Your task to perform on an android device: Turn off the flashlight Image 0: 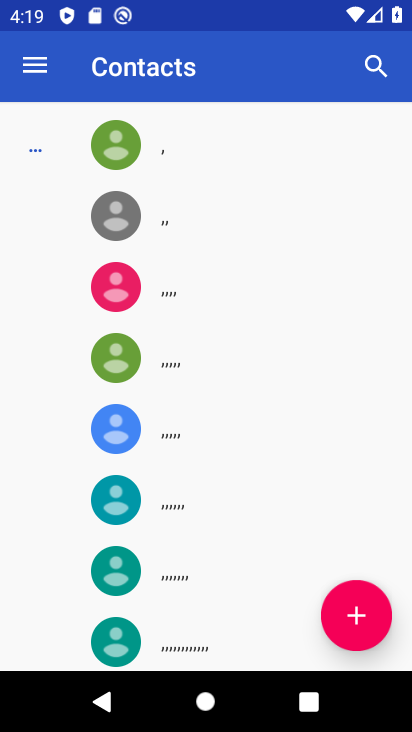
Step 0: press home button
Your task to perform on an android device: Turn off the flashlight Image 1: 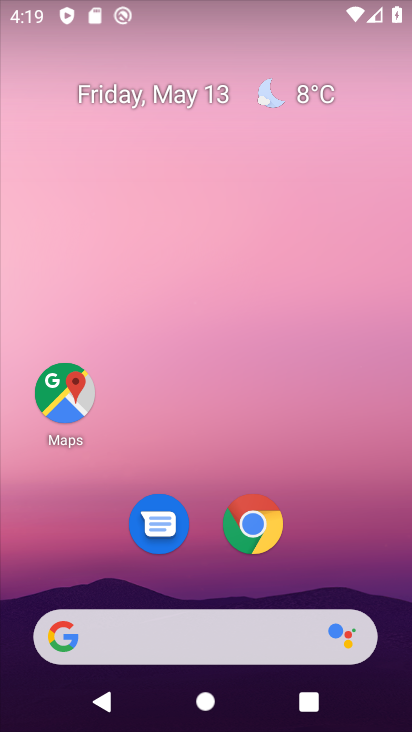
Step 1: drag from (329, 518) to (247, 44)
Your task to perform on an android device: Turn off the flashlight Image 2: 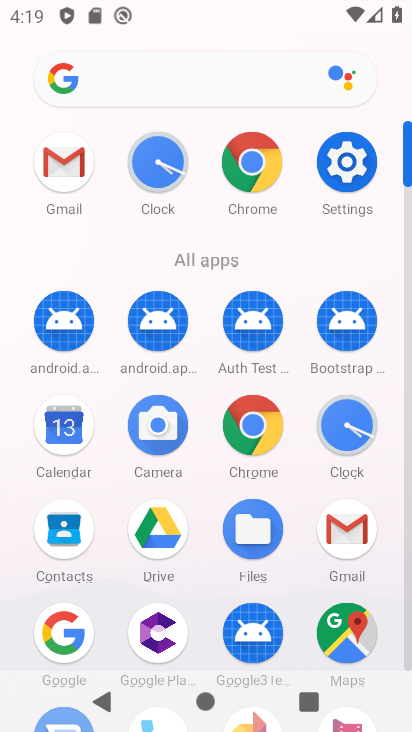
Step 2: click (333, 165)
Your task to perform on an android device: Turn off the flashlight Image 3: 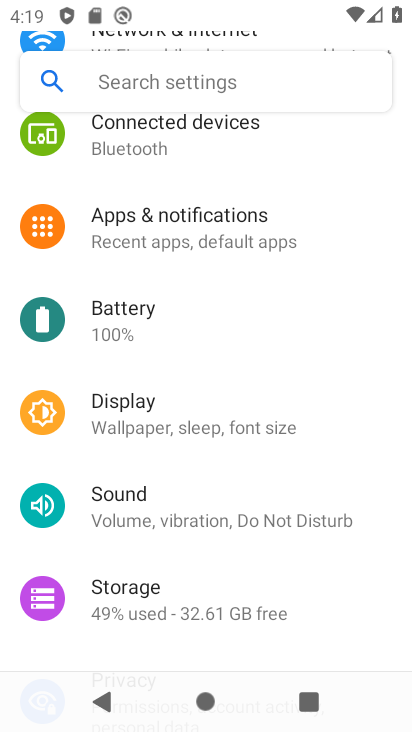
Step 3: drag from (264, 199) to (325, 585)
Your task to perform on an android device: Turn off the flashlight Image 4: 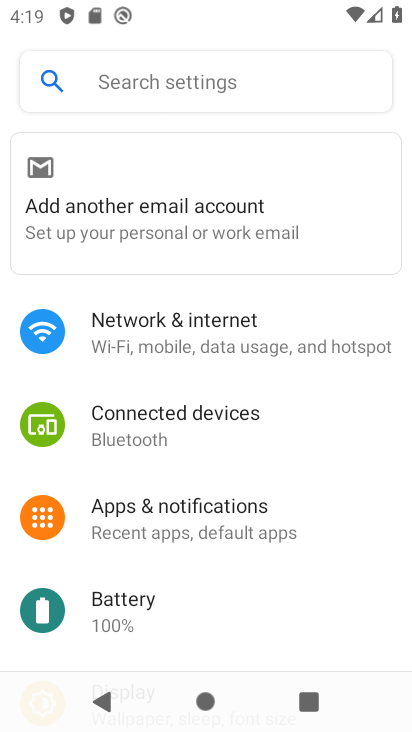
Step 4: click (209, 66)
Your task to perform on an android device: Turn off the flashlight Image 5: 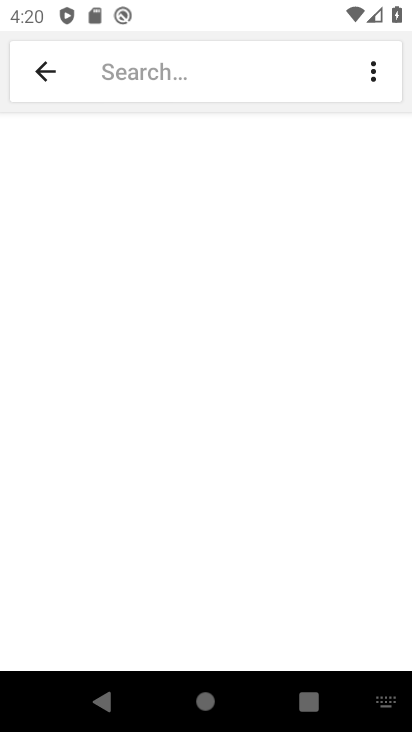
Step 5: type "Flashlight"
Your task to perform on an android device: Turn off the flashlight Image 6: 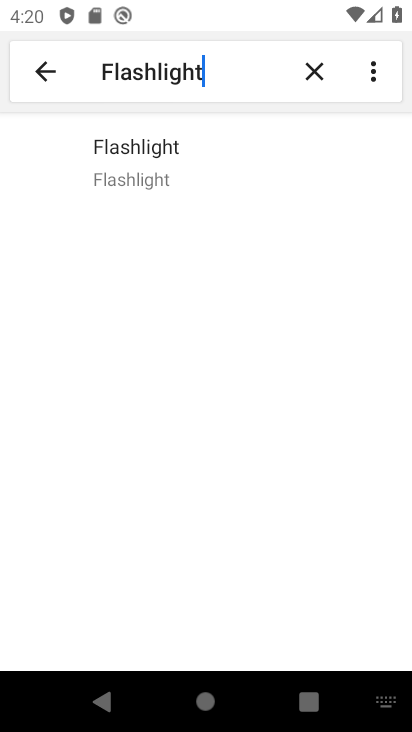
Step 6: click (154, 151)
Your task to perform on an android device: Turn off the flashlight Image 7: 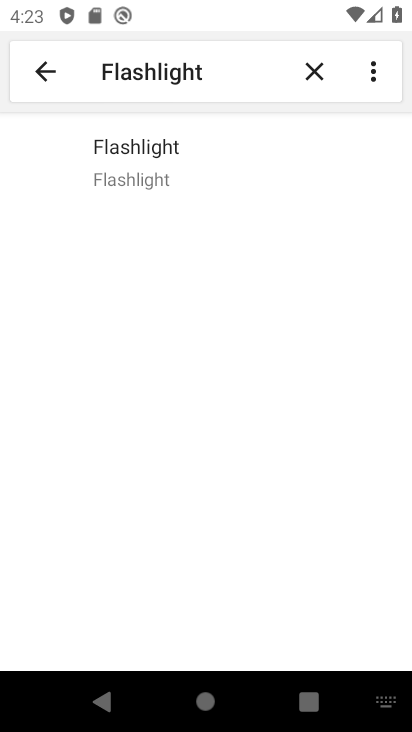
Step 7: task complete